Your task to perform on an android device: Open notification settings Image 0: 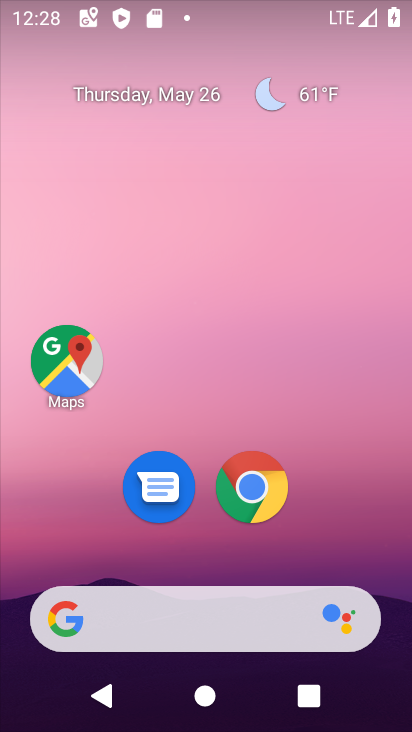
Step 0: drag from (254, 662) to (243, 98)
Your task to perform on an android device: Open notification settings Image 1: 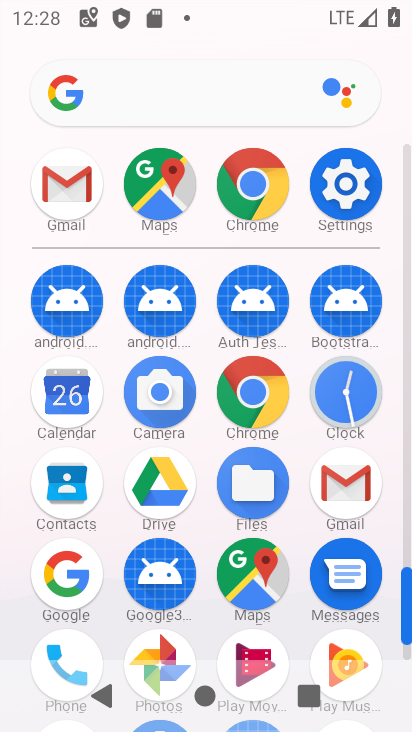
Step 1: click (323, 193)
Your task to perform on an android device: Open notification settings Image 2: 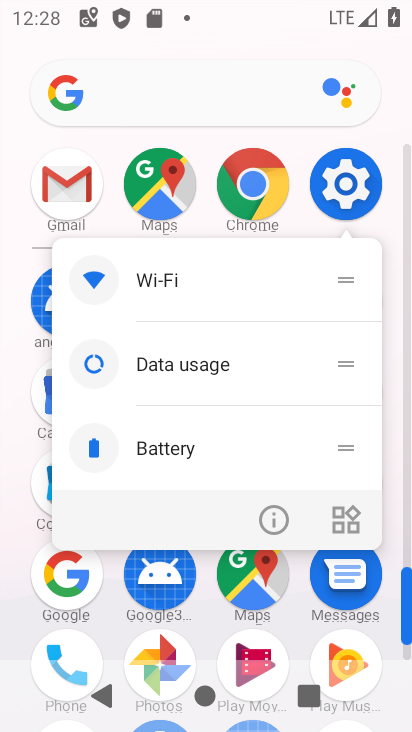
Step 2: click (353, 178)
Your task to perform on an android device: Open notification settings Image 3: 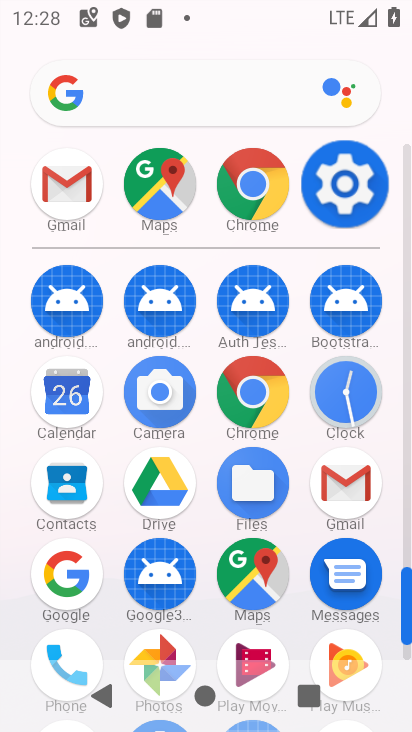
Step 3: click (353, 178)
Your task to perform on an android device: Open notification settings Image 4: 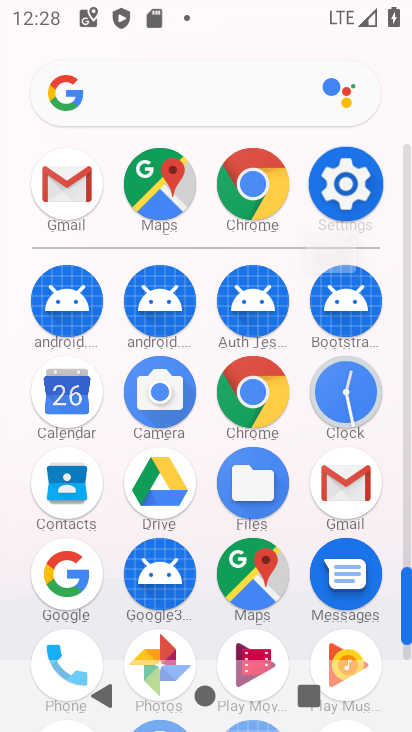
Step 4: click (353, 178)
Your task to perform on an android device: Open notification settings Image 5: 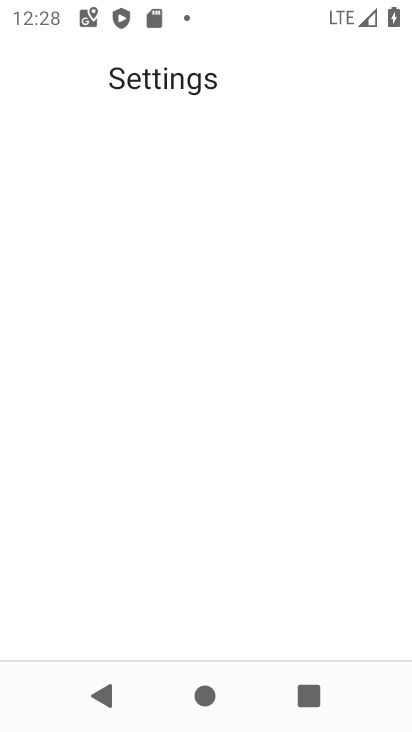
Step 5: click (353, 178)
Your task to perform on an android device: Open notification settings Image 6: 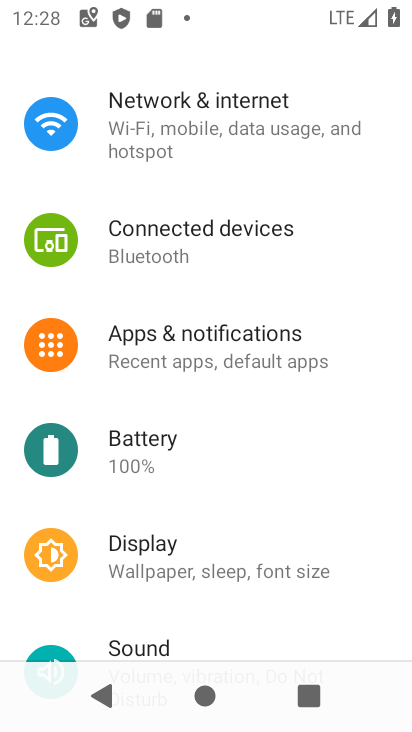
Step 6: click (351, 177)
Your task to perform on an android device: Open notification settings Image 7: 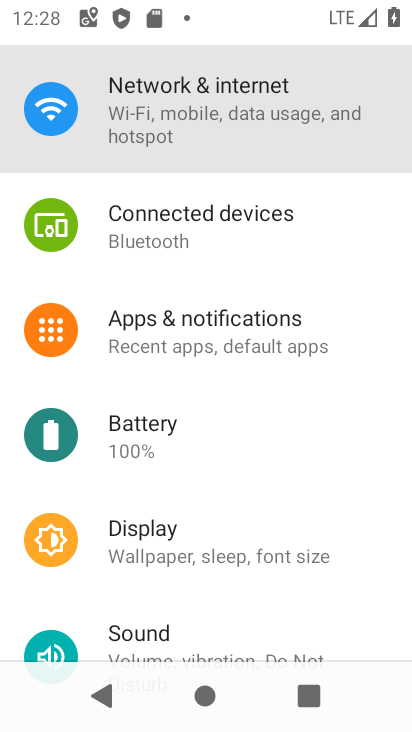
Step 7: click (351, 177)
Your task to perform on an android device: Open notification settings Image 8: 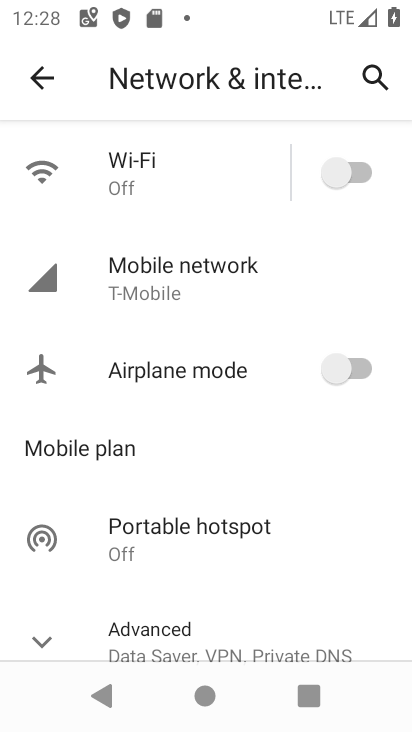
Step 8: click (33, 75)
Your task to perform on an android device: Open notification settings Image 9: 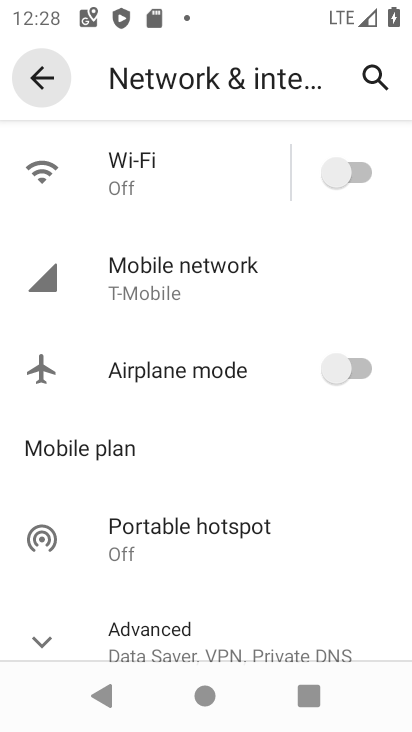
Step 9: click (34, 74)
Your task to perform on an android device: Open notification settings Image 10: 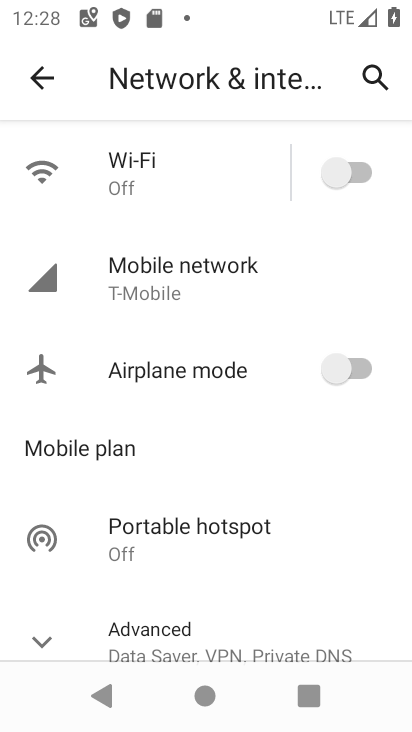
Step 10: click (35, 73)
Your task to perform on an android device: Open notification settings Image 11: 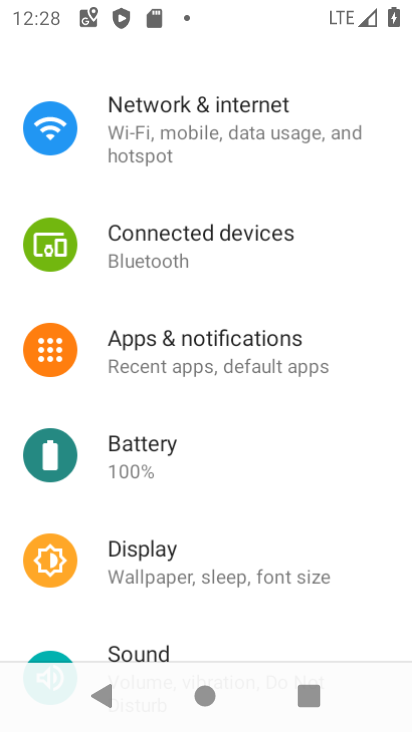
Step 11: click (35, 73)
Your task to perform on an android device: Open notification settings Image 12: 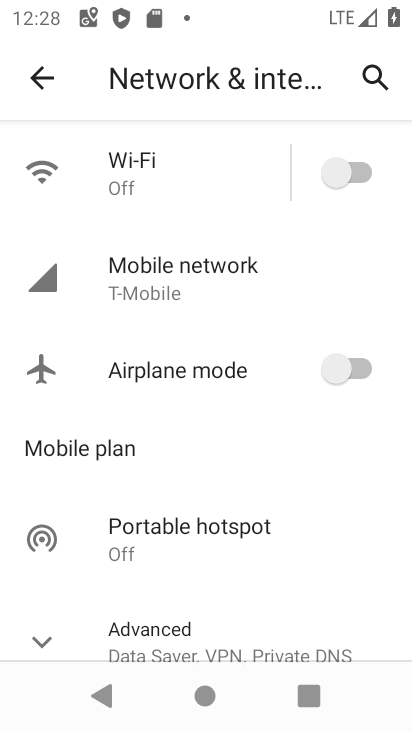
Step 12: click (46, 81)
Your task to perform on an android device: Open notification settings Image 13: 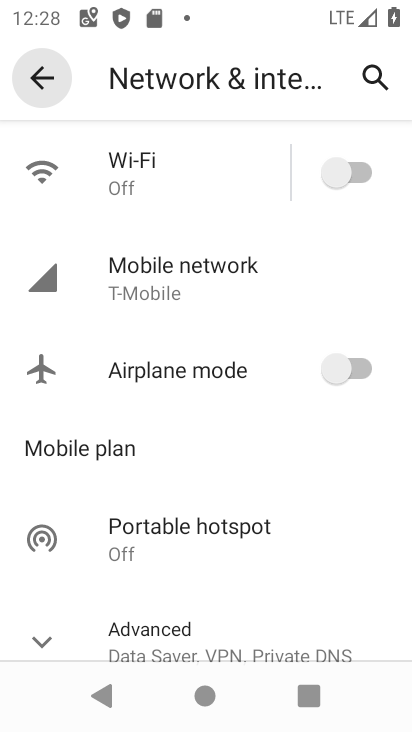
Step 13: click (45, 80)
Your task to perform on an android device: Open notification settings Image 14: 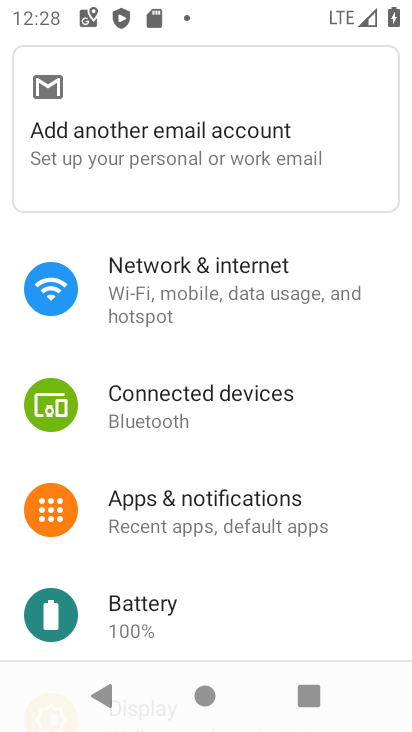
Step 14: click (183, 508)
Your task to perform on an android device: Open notification settings Image 15: 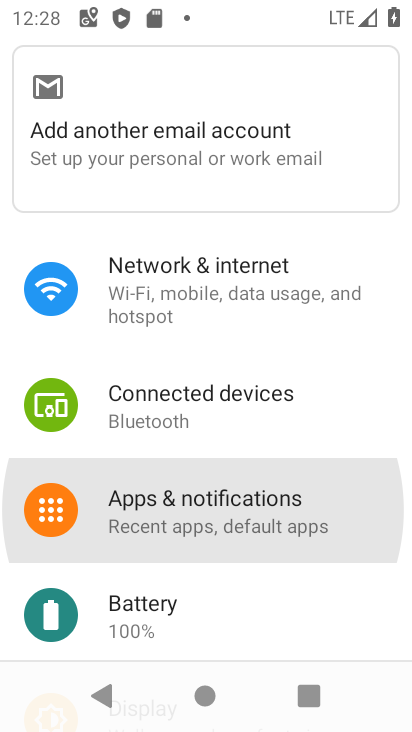
Step 15: click (183, 508)
Your task to perform on an android device: Open notification settings Image 16: 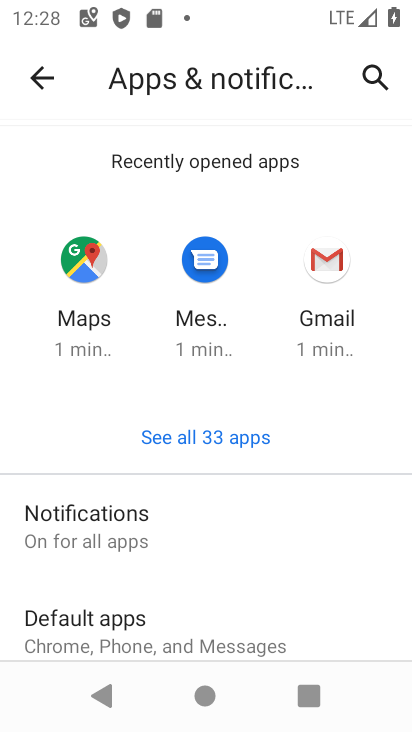
Step 16: click (100, 513)
Your task to perform on an android device: Open notification settings Image 17: 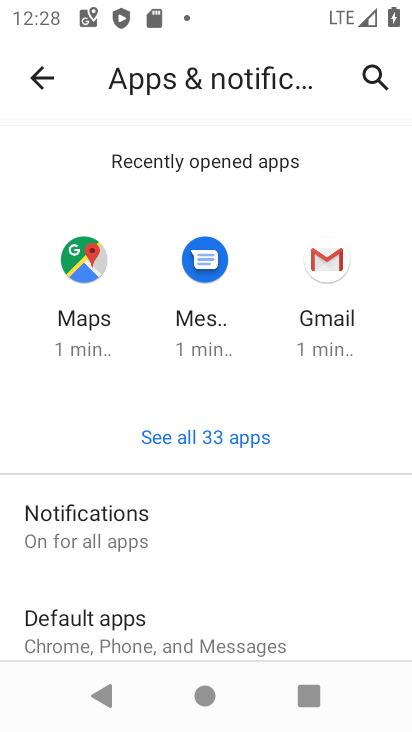
Step 17: click (99, 514)
Your task to perform on an android device: Open notification settings Image 18: 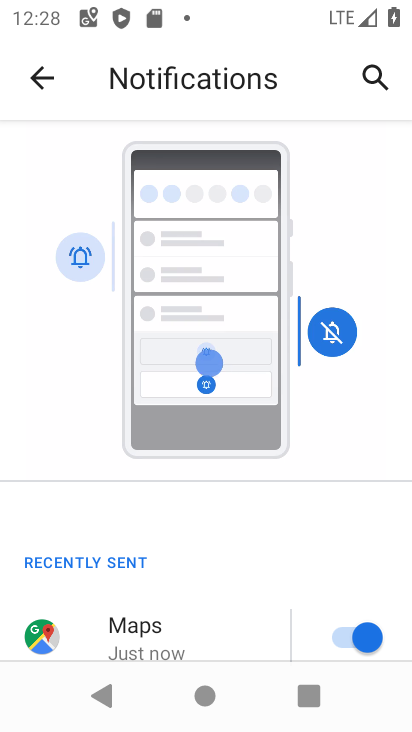
Step 18: drag from (214, 603) to (143, 132)
Your task to perform on an android device: Open notification settings Image 19: 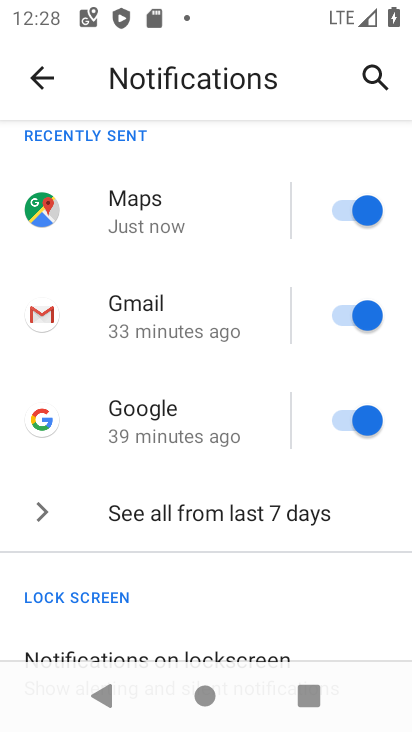
Step 19: drag from (207, 506) to (161, 98)
Your task to perform on an android device: Open notification settings Image 20: 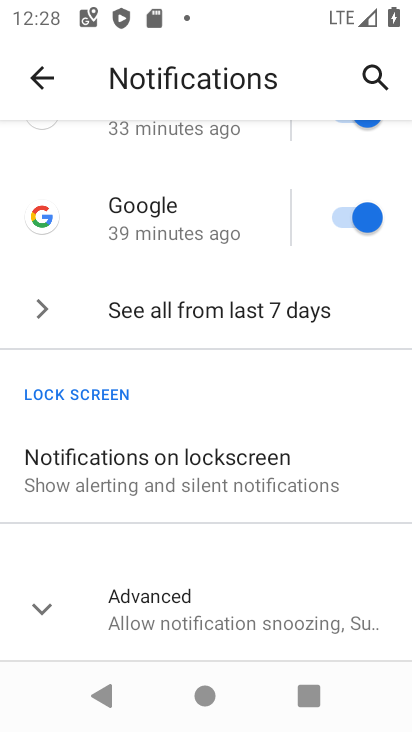
Step 20: click (160, 600)
Your task to perform on an android device: Open notification settings Image 21: 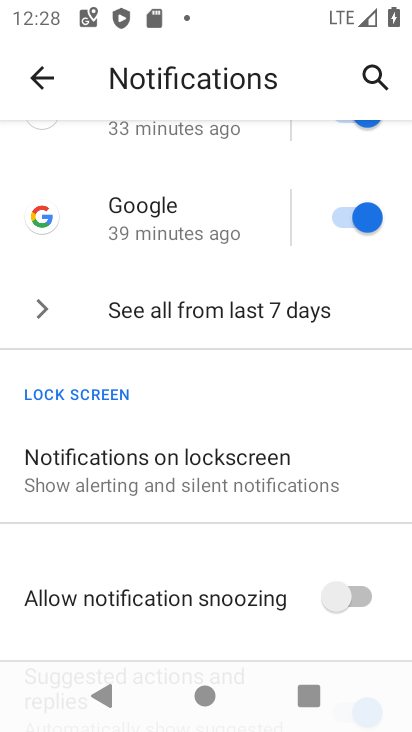
Step 21: task complete